Your task to perform on an android device: find snoozed emails in the gmail app Image 0: 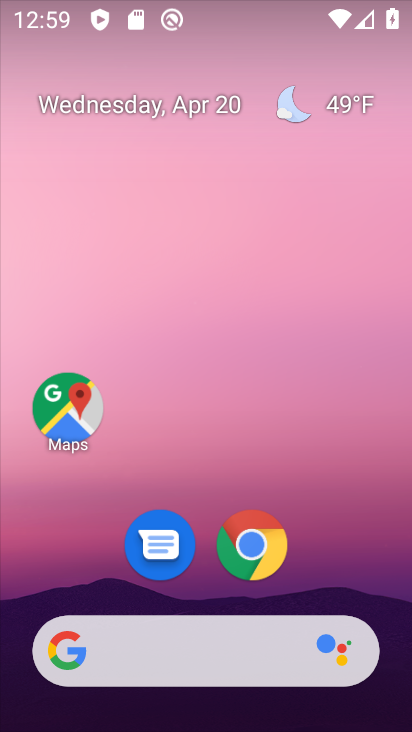
Step 0: drag from (131, 575) to (260, 35)
Your task to perform on an android device: find snoozed emails in the gmail app Image 1: 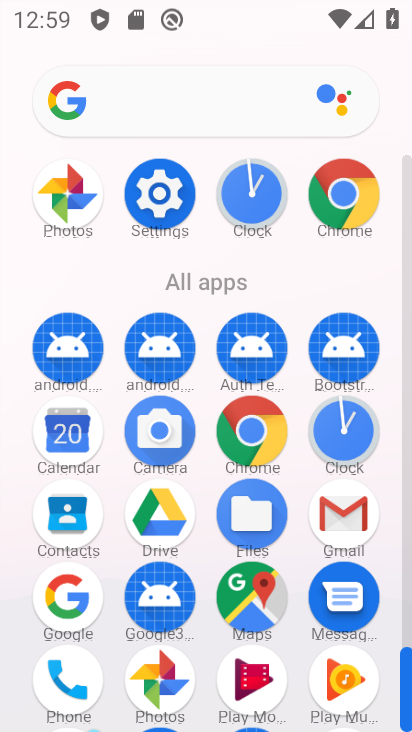
Step 1: click (329, 515)
Your task to perform on an android device: find snoozed emails in the gmail app Image 2: 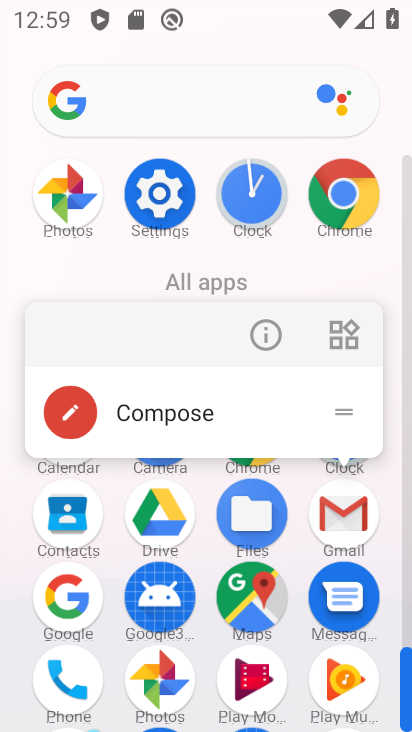
Step 2: click (342, 514)
Your task to perform on an android device: find snoozed emails in the gmail app Image 3: 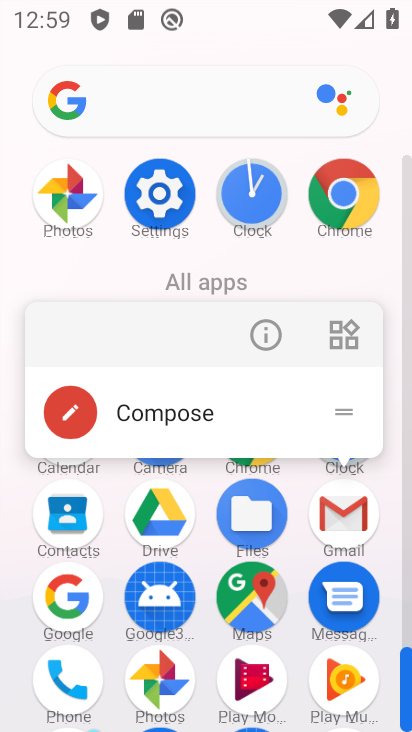
Step 3: click (341, 527)
Your task to perform on an android device: find snoozed emails in the gmail app Image 4: 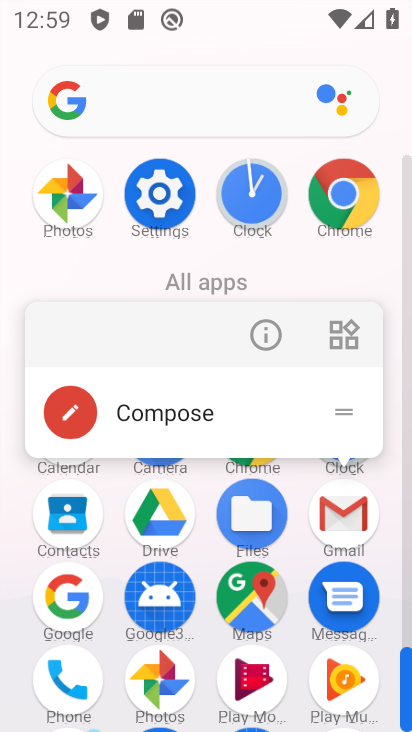
Step 4: click (348, 520)
Your task to perform on an android device: find snoozed emails in the gmail app Image 5: 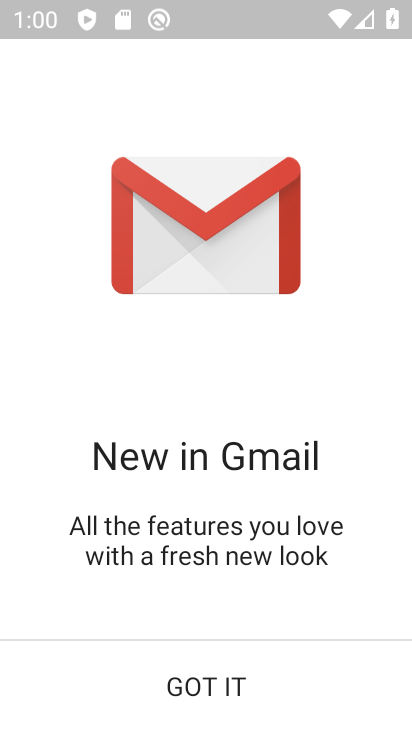
Step 5: click (235, 692)
Your task to perform on an android device: find snoozed emails in the gmail app Image 6: 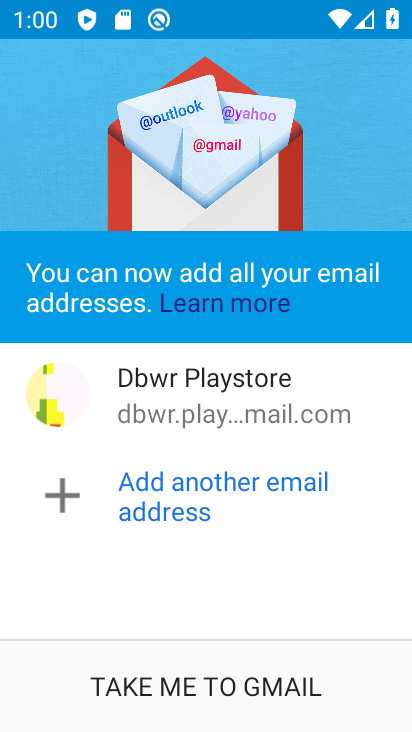
Step 6: click (235, 692)
Your task to perform on an android device: find snoozed emails in the gmail app Image 7: 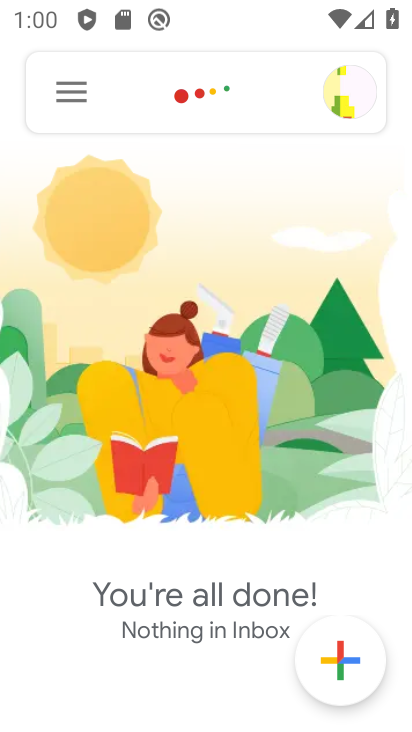
Step 7: drag from (89, 100) to (75, 416)
Your task to perform on an android device: find snoozed emails in the gmail app Image 8: 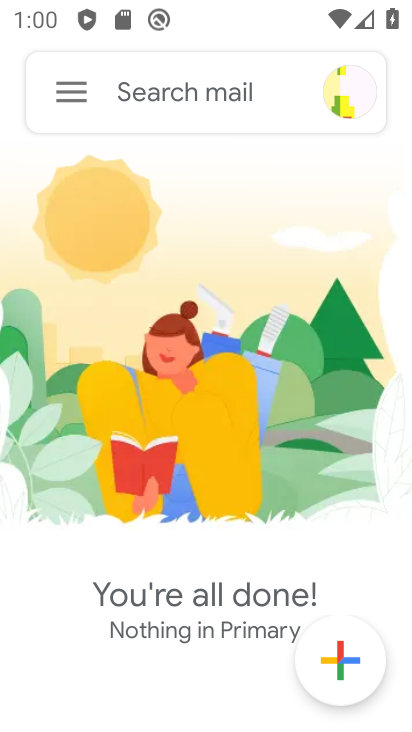
Step 8: click (65, 104)
Your task to perform on an android device: find snoozed emails in the gmail app Image 9: 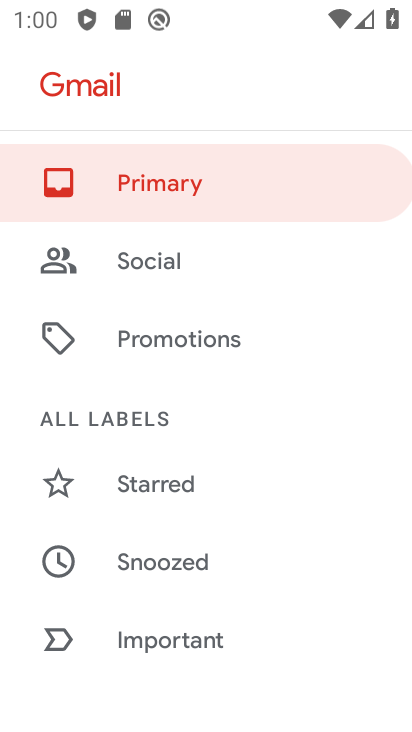
Step 9: click (209, 563)
Your task to perform on an android device: find snoozed emails in the gmail app Image 10: 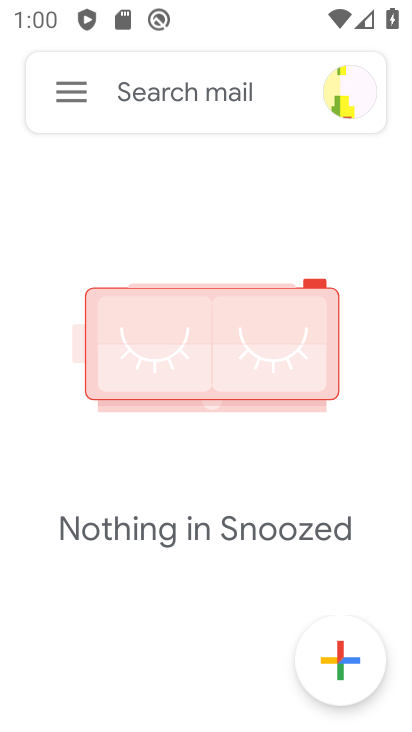
Step 10: task complete